Your task to perform on an android device: Open the phone app and click the voicemail tab. Image 0: 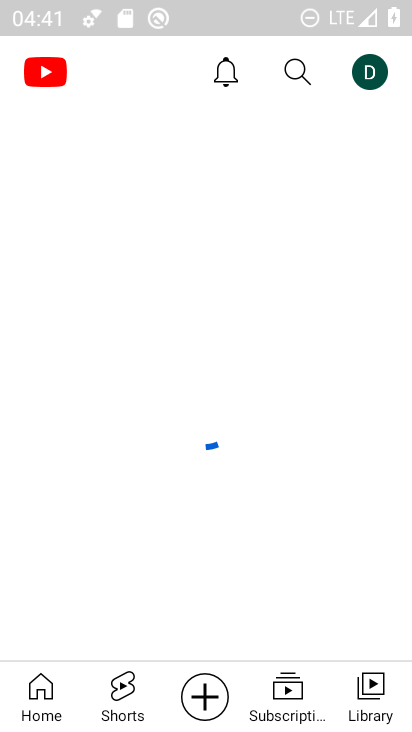
Step 0: drag from (213, 722) to (213, 202)
Your task to perform on an android device: Open the phone app and click the voicemail tab. Image 1: 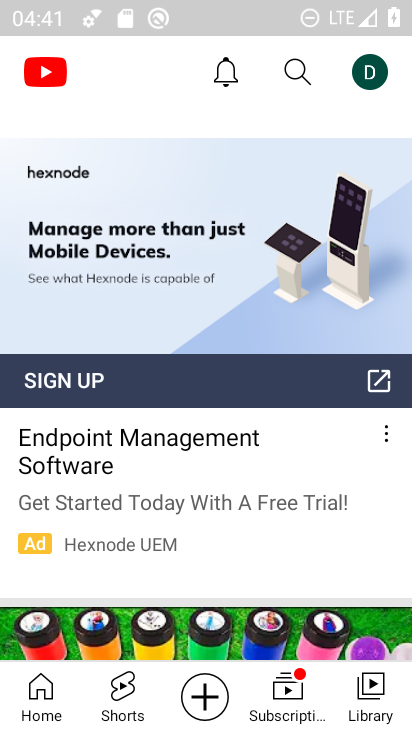
Step 1: press home button
Your task to perform on an android device: Open the phone app and click the voicemail tab. Image 2: 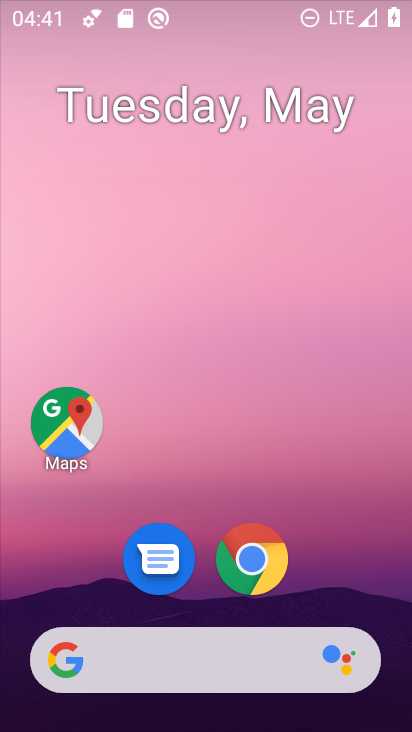
Step 2: drag from (209, 716) to (212, 210)
Your task to perform on an android device: Open the phone app and click the voicemail tab. Image 3: 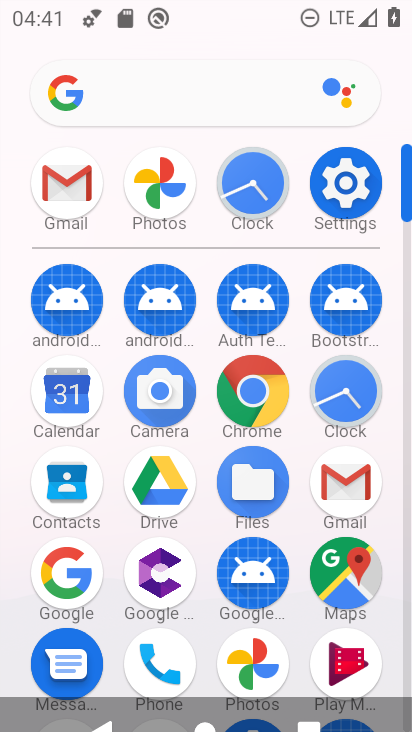
Step 3: click (151, 649)
Your task to perform on an android device: Open the phone app and click the voicemail tab. Image 4: 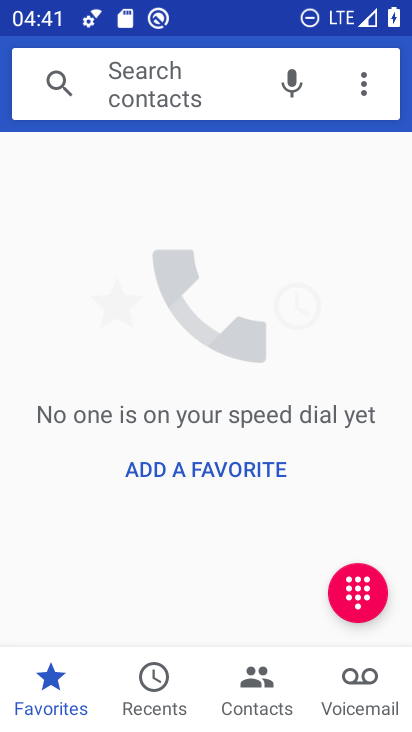
Step 4: click (356, 677)
Your task to perform on an android device: Open the phone app and click the voicemail tab. Image 5: 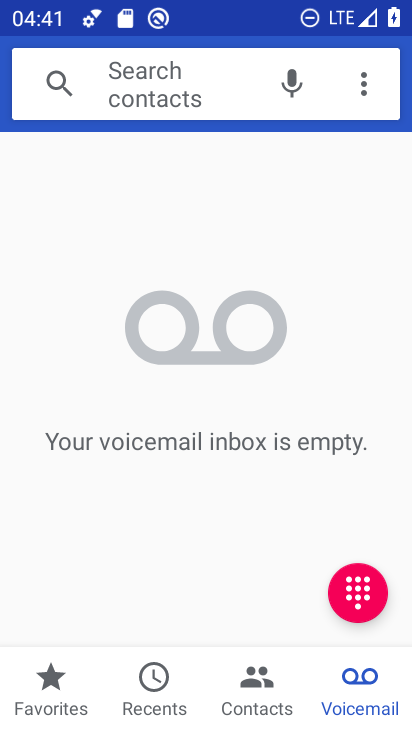
Step 5: task complete